Your task to perform on an android device: What's the weather today? Image 0: 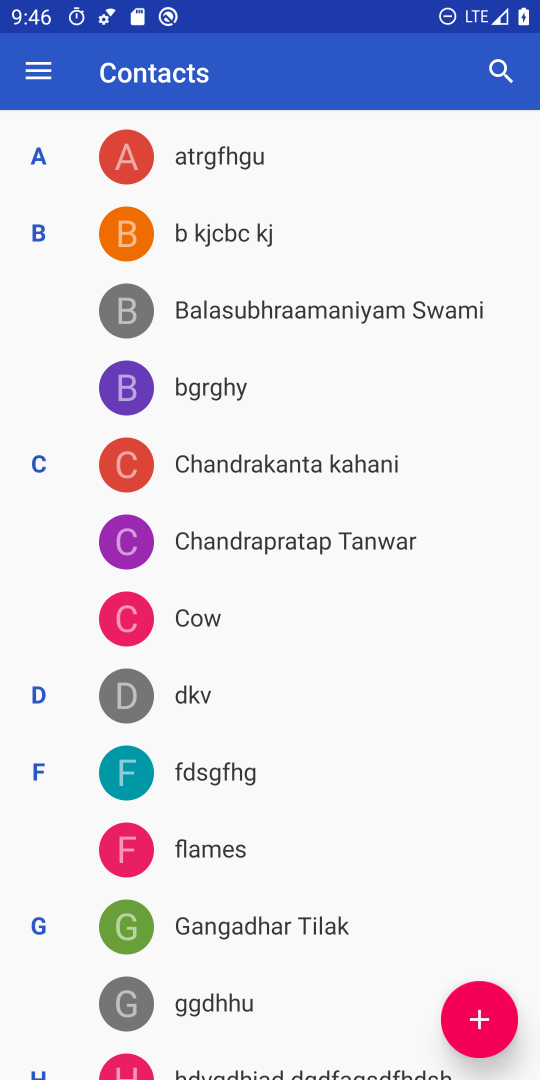
Step 0: press home button
Your task to perform on an android device: What's the weather today? Image 1: 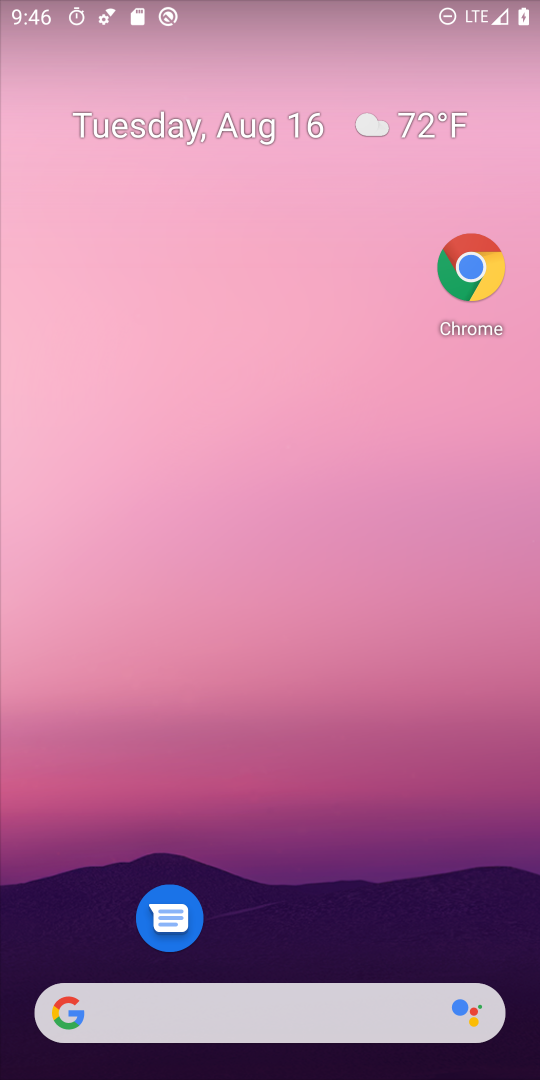
Step 1: drag from (218, 761) to (203, 0)
Your task to perform on an android device: What's the weather today? Image 2: 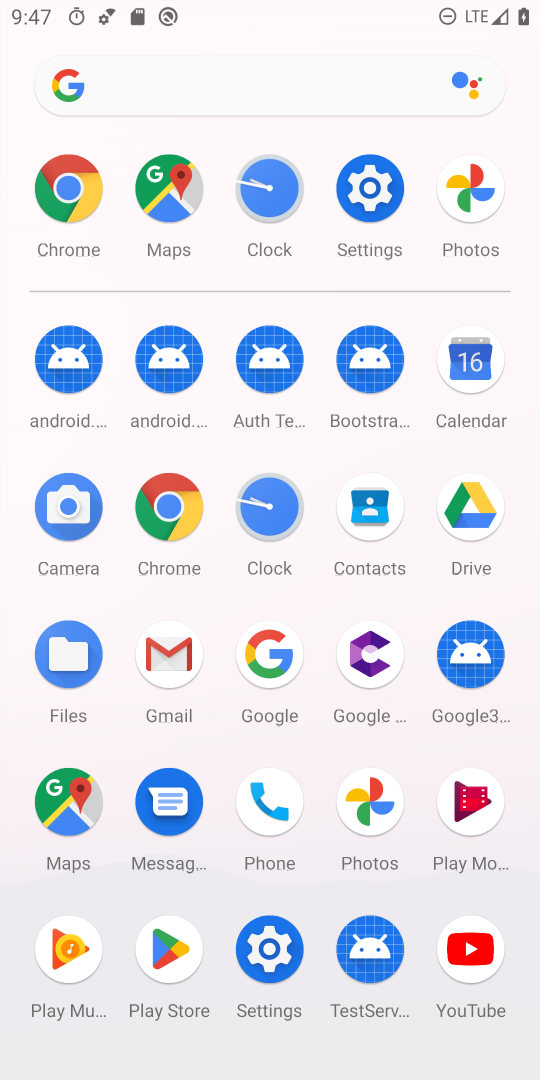
Step 2: click (281, 676)
Your task to perform on an android device: What's the weather today? Image 3: 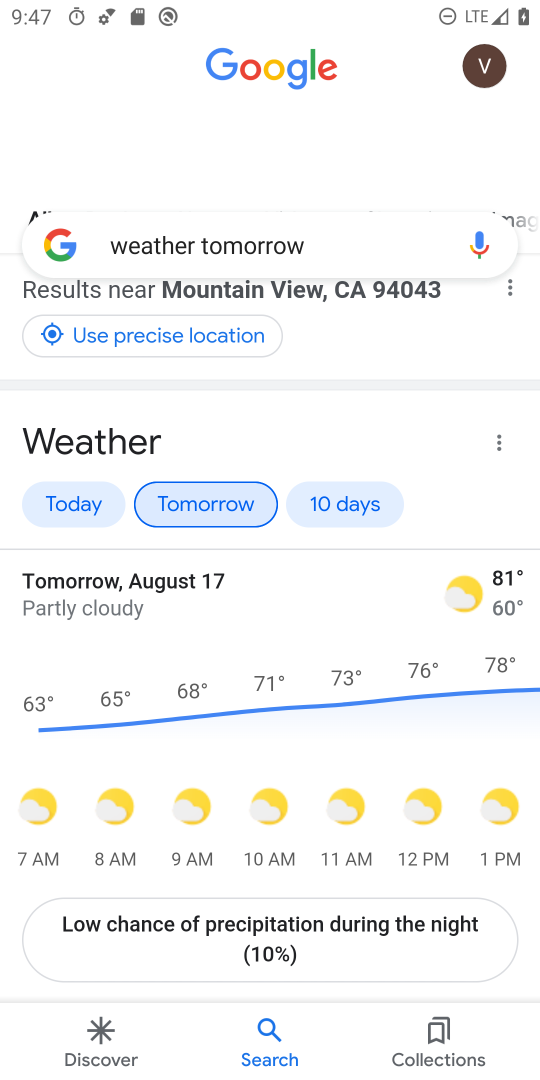
Step 3: click (64, 509)
Your task to perform on an android device: What's the weather today? Image 4: 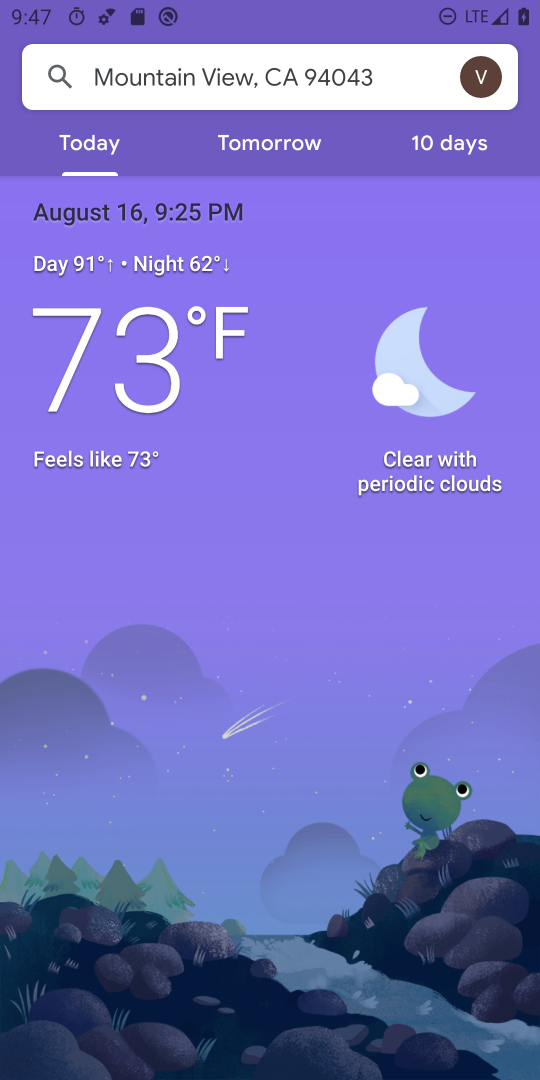
Step 4: task complete